Your task to perform on an android device: change the clock style Image 0: 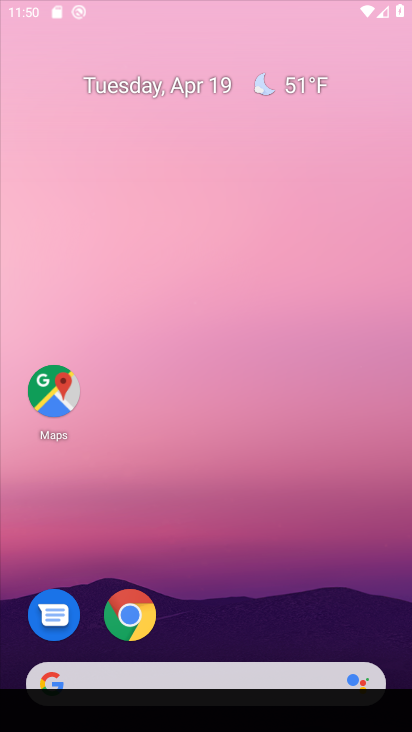
Step 0: click (118, 628)
Your task to perform on an android device: change the clock style Image 1: 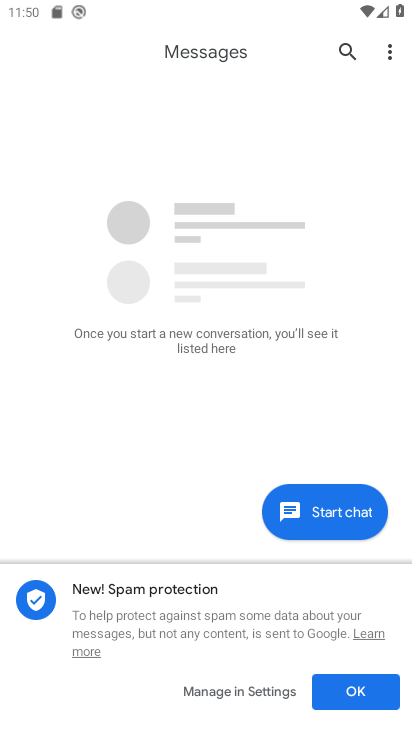
Step 1: press back button
Your task to perform on an android device: change the clock style Image 2: 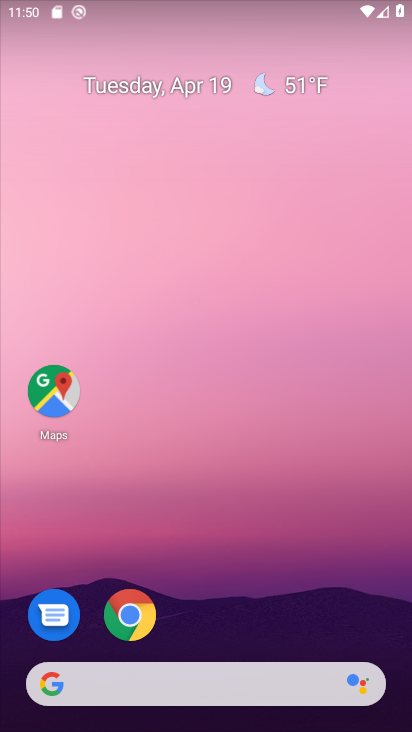
Step 2: drag from (172, 672) to (228, 156)
Your task to perform on an android device: change the clock style Image 3: 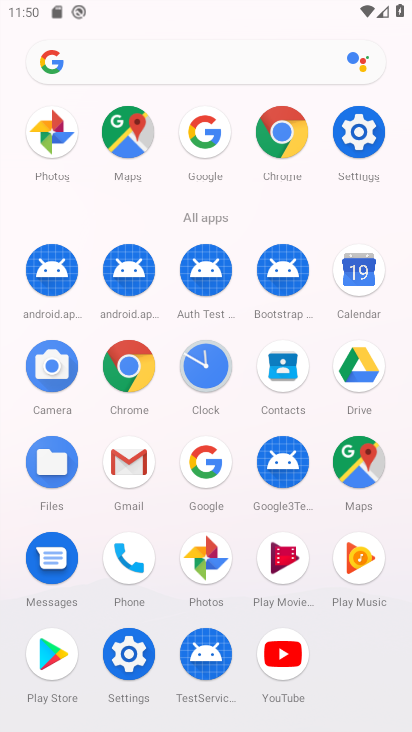
Step 3: click (196, 370)
Your task to perform on an android device: change the clock style Image 4: 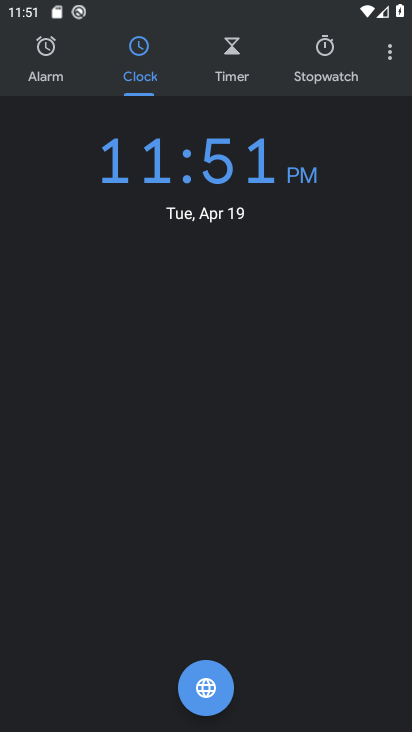
Step 4: click (384, 61)
Your task to perform on an android device: change the clock style Image 5: 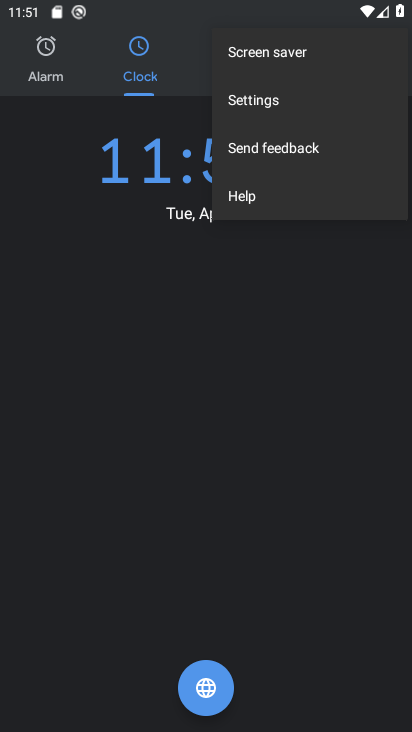
Step 5: click (259, 102)
Your task to perform on an android device: change the clock style Image 6: 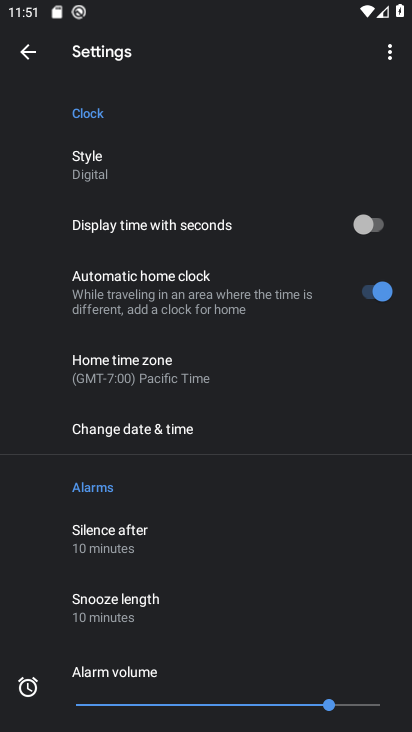
Step 6: click (114, 173)
Your task to perform on an android device: change the clock style Image 7: 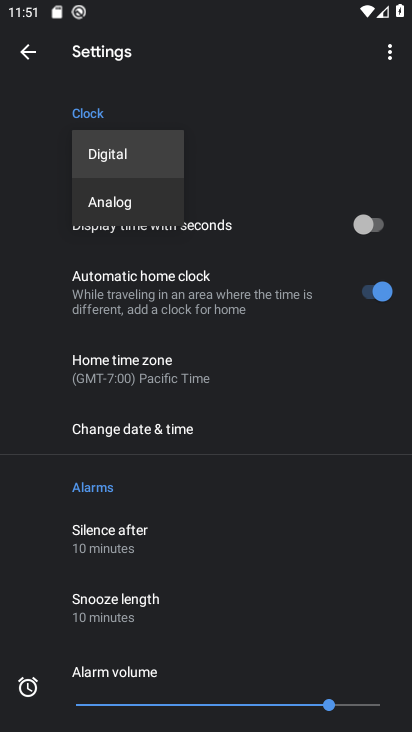
Step 7: click (127, 208)
Your task to perform on an android device: change the clock style Image 8: 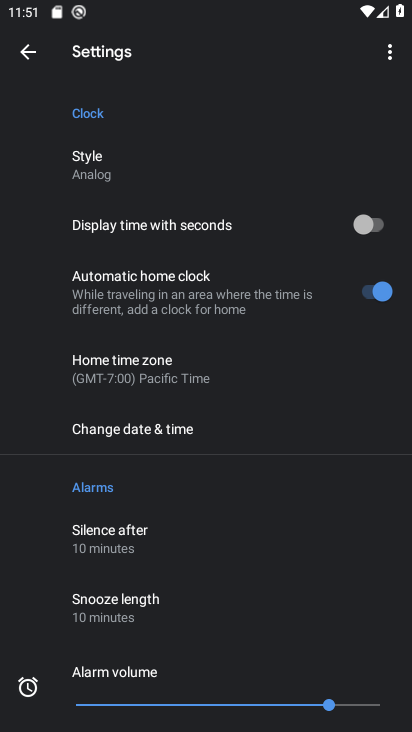
Step 8: task complete